Your task to perform on an android device: set an alarm Image 0: 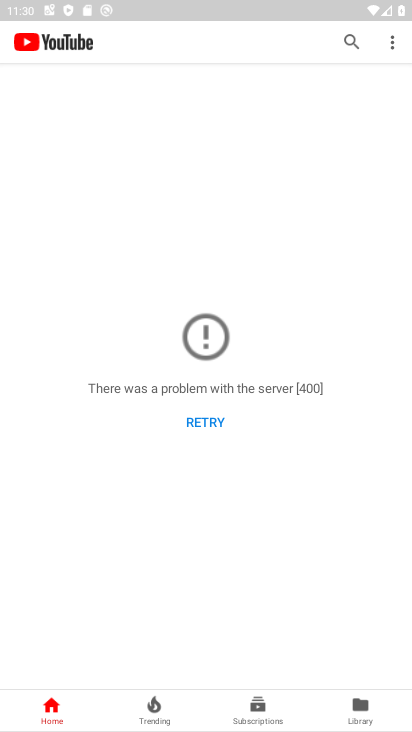
Step 0: press home button
Your task to perform on an android device: set an alarm Image 1: 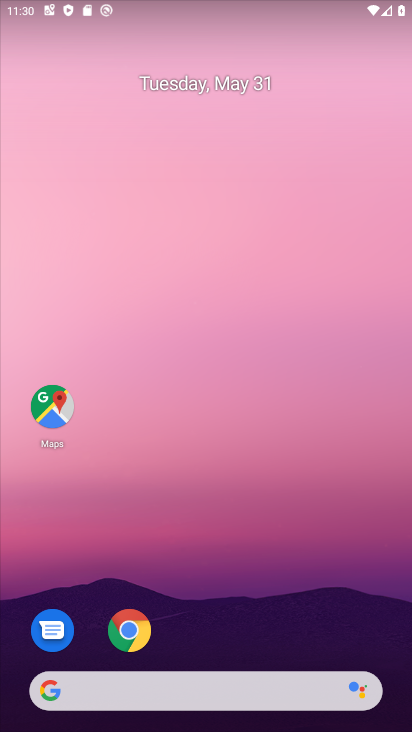
Step 1: drag from (148, 724) to (166, 151)
Your task to perform on an android device: set an alarm Image 2: 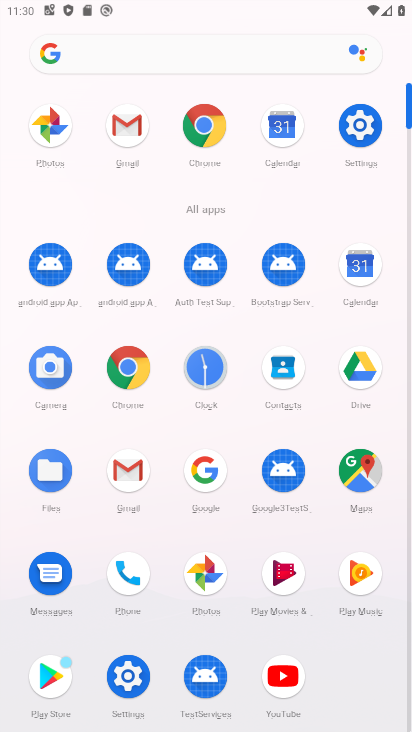
Step 2: click (198, 373)
Your task to perform on an android device: set an alarm Image 3: 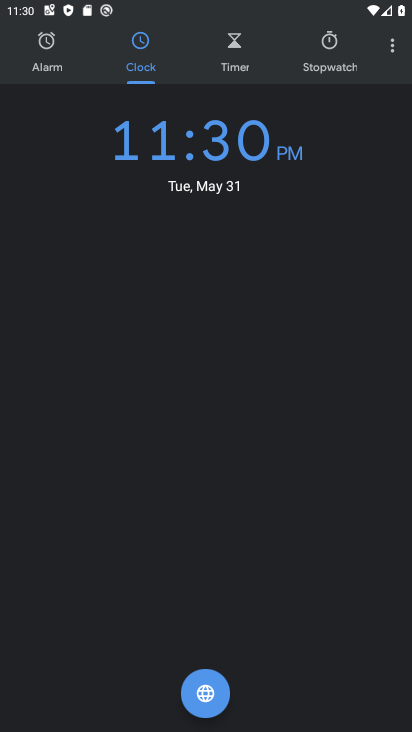
Step 3: click (34, 54)
Your task to perform on an android device: set an alarm Image 4: 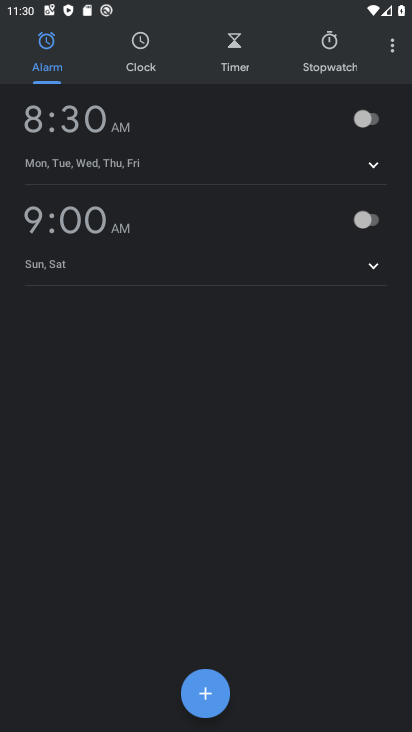
Step 4: click (365, 123)
Your task to perform on an android device: set an alarm Image 5: 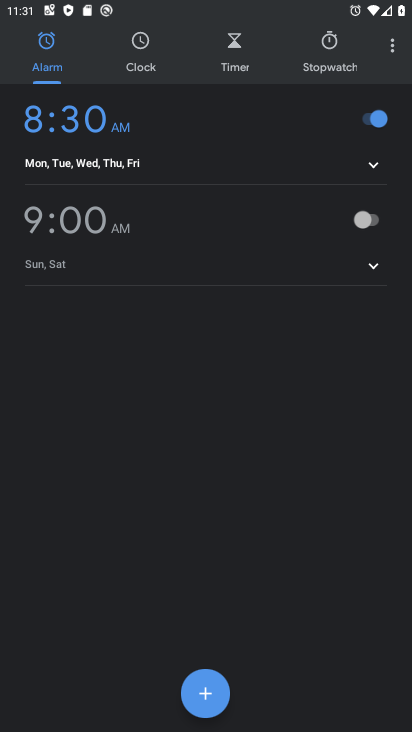
Step 5: task complete